Your task to perform on an android device: turn off notifications settings in the gmail app Image 0: 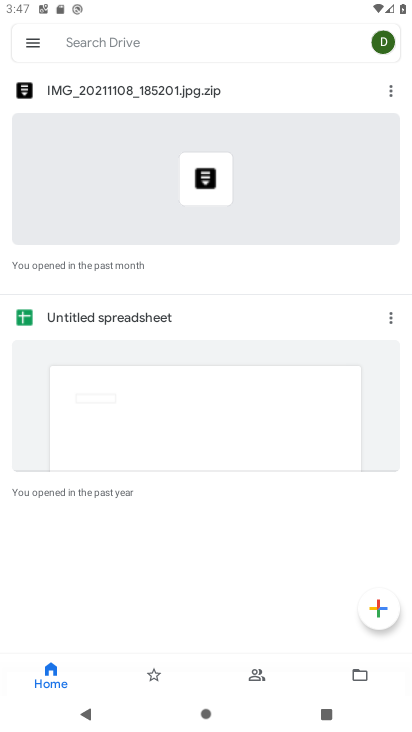
Step 0: press home button
Your task to perform on an android device: turn off notifications settings in the gmail app Image 1: 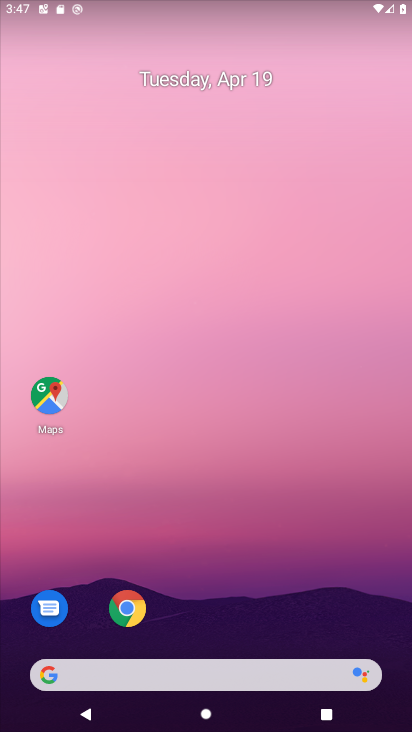
Step 1: drag from (225, 617) to (224, 32)
Your task to perform on an android device: turn off notifications settings in the gmail app Image 2: 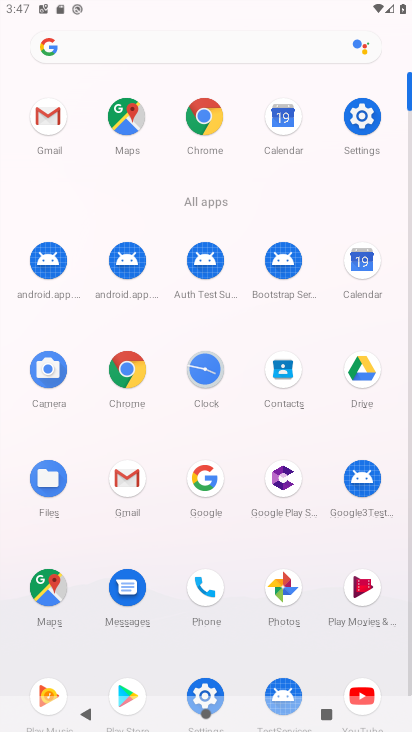
Step 2: click (48, 121)
Your task to perform on an android device: turn off notifications settings in the gmail app Image 3: 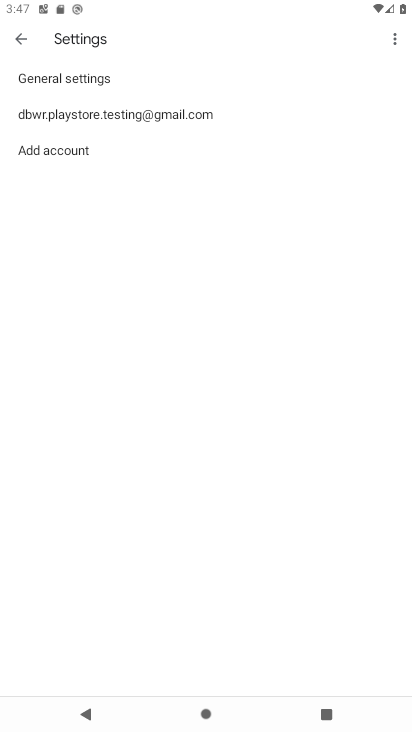
Step 3: click (54, 110)
Your task to perform on an android device: turn off notifications settings in the gmail app Image 4: 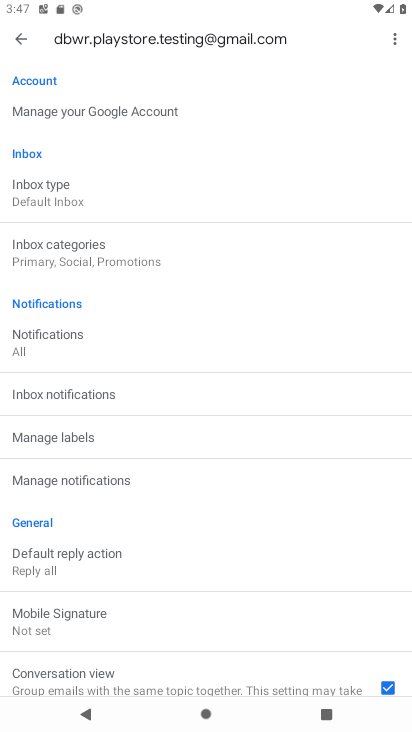
Step 4: click (105, 480)
Your task to perform on an android device: turn off notifications settings in the gmail app Image 5: 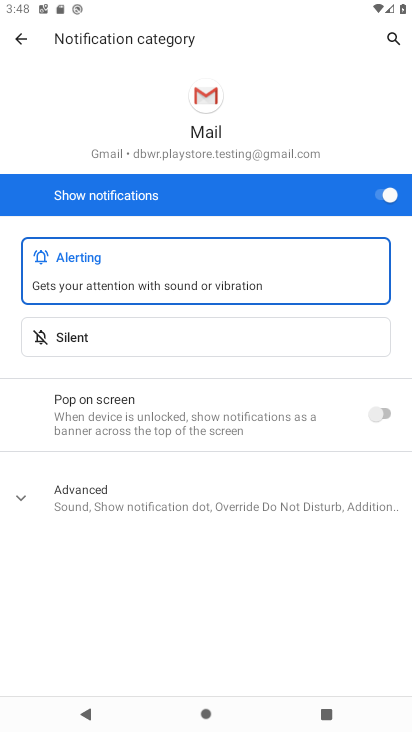
Step 5: click (371, 193)
Your task to perform on an android device: turn off notifications settings in the gmail app Image 6: 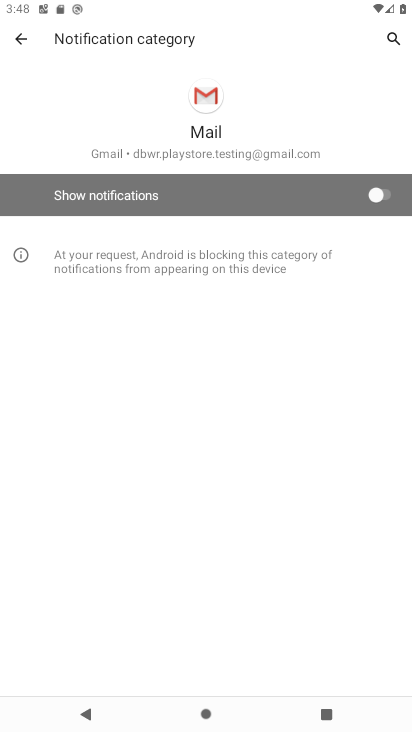
Step 6: task complete